Your task to perform on an android device: Open settings on Google Maps Image 0: 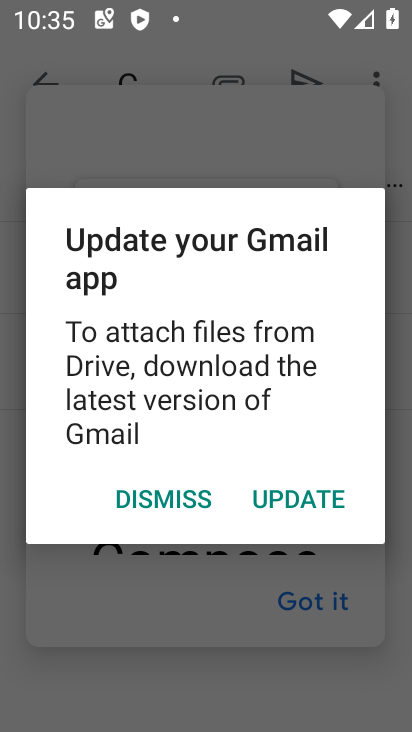
Step 0: press home button
Your task to perform on an android device: Open settings on Google Maps Image 1: 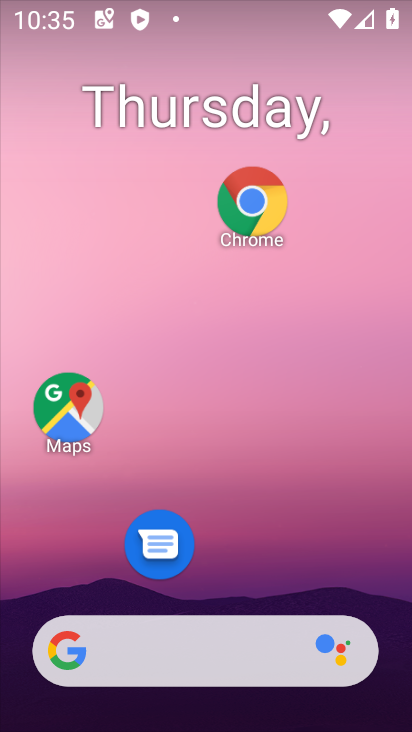
Step 1: press home button
Your task to perform on an android device: Open settings on Google Maps Image 2: 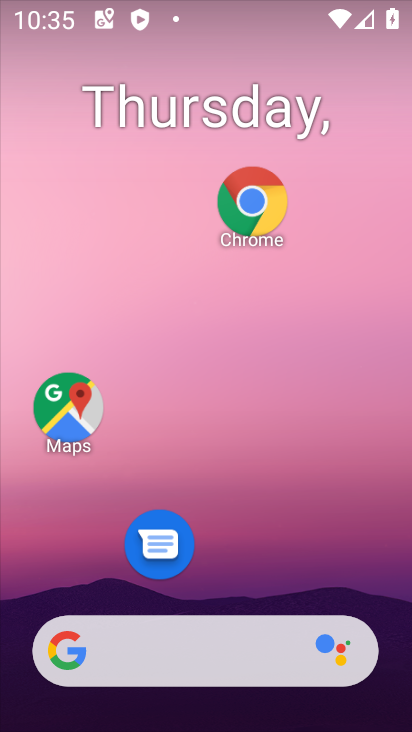
Step 2: click (66, 406)
Your task to perform on an android device: Open settings on Google Maps Image 3: 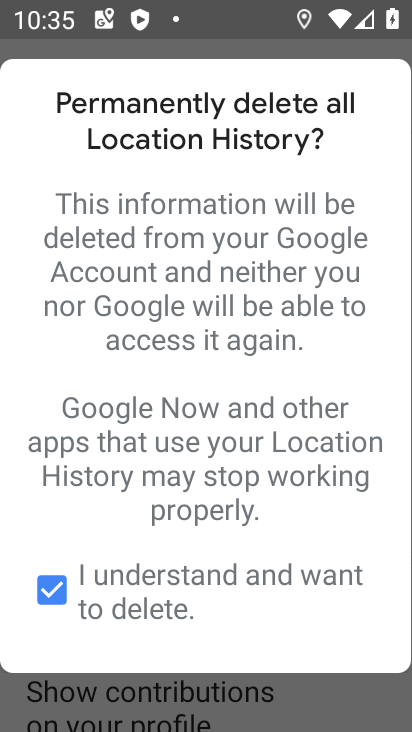
Step 3: press back button
Your task to perform on an android device: Open settings on Google Maps Image 4: 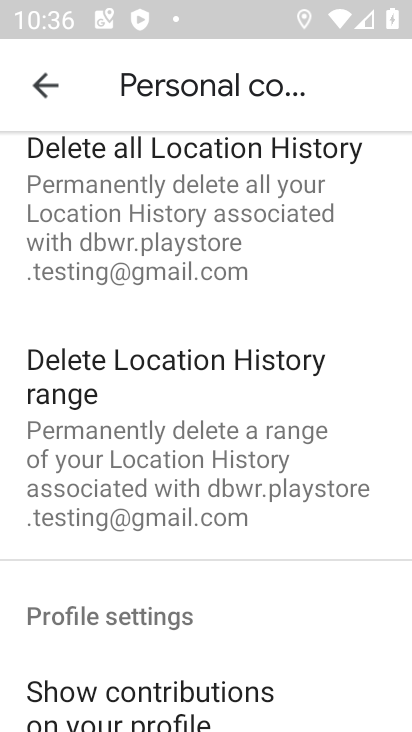
Step 4: click (52, 92)
Your task to perform on an android device: Open settings on Google Maps Image 5: 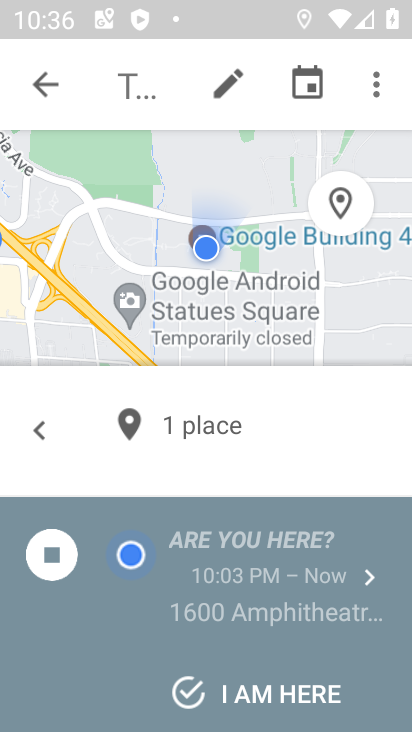
Step 5: click (52, 92)
Your task to perform on an android device: Open settings on Google Maps Image 6: 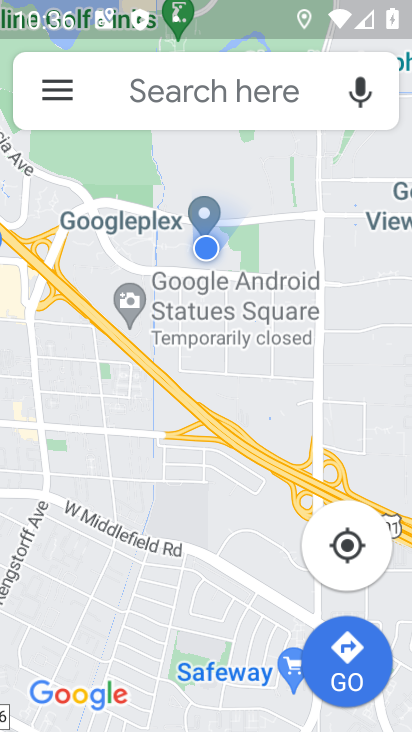
Step 6: click (52, 87)
Your task to perform on an android device: Open settings on Google Maps Image 7: 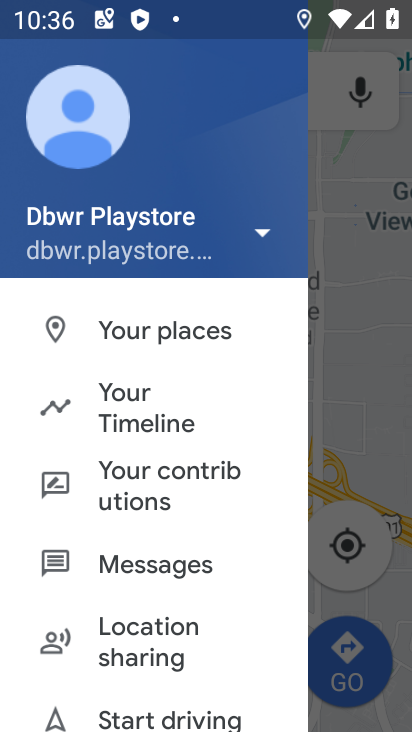
Step 7: drag from (158, 598) to (217, 147)
Your task to perform on an android device: Open settings on Google Maps Image 8: 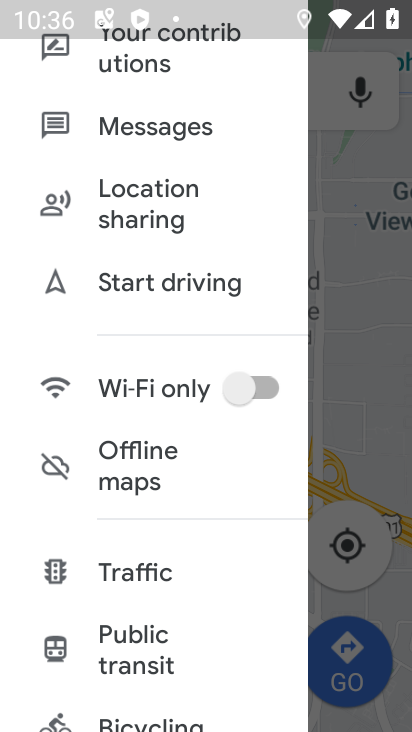
Step 8: drag from (151, 662) to (154, 123)
Your task to perform on an android device: Open settings on Google Maps Image 9: 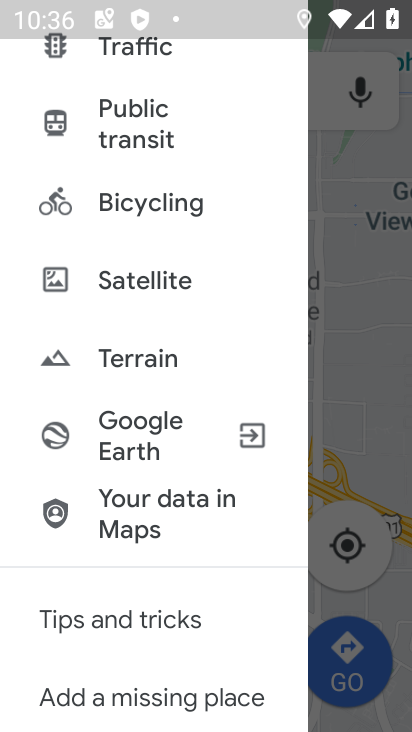
Step 9: drag from (149, 636) to (158, 56)
Your task to perform on an android device: Open settings on Google Maps Image 10: 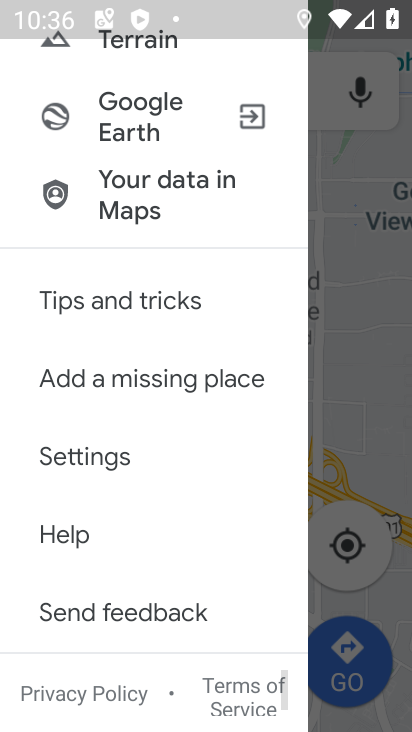
Step 10: click (131, 451)
Your task to perform on an android device: Open settings on Google Maps Image 11: 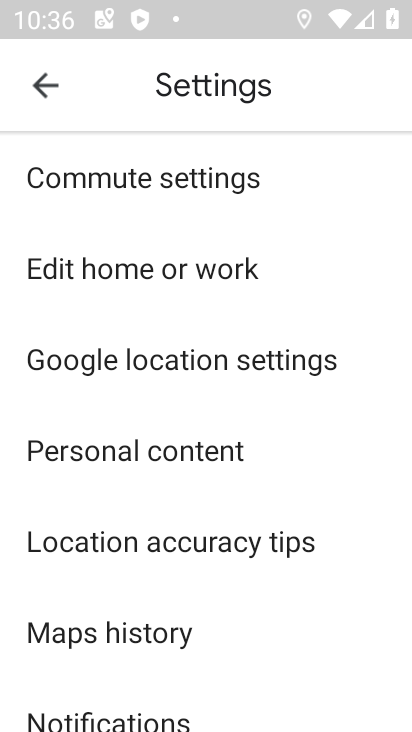
Step 11: task complete